Your task to perform on an android device: turn vacation reply on in the gmail app Image 0: 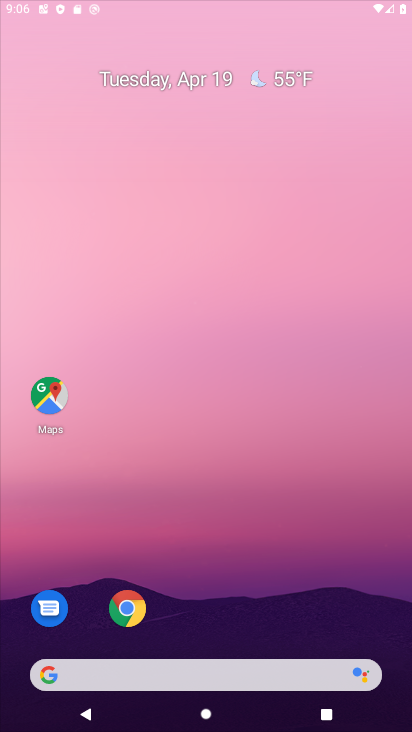
Step 0: drag from (214, 474) to (207, 146)
Your task to perform on an android device: turn vacation reply on in the gmail app Image 1: 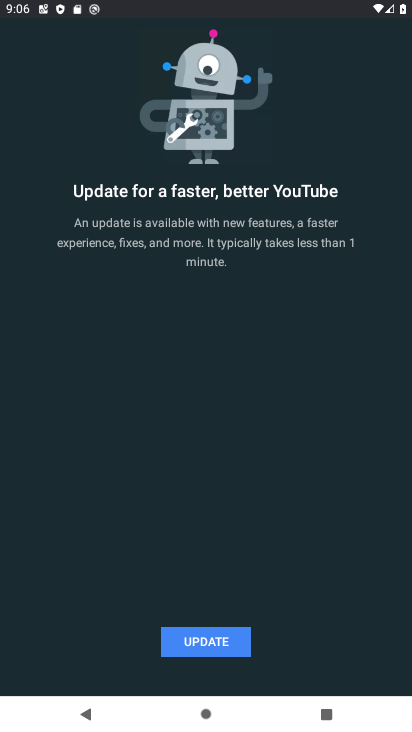
Step 1: press back button
Your task to perform on an android device: turn vacation reply on in the gmail app Image 2: 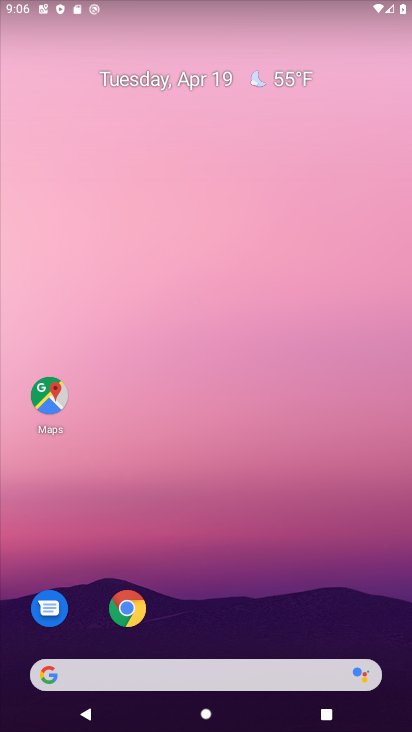
Step 2: drag from (210, 655) to (288, 193)
Your task to perform on an android device: turn vacation reply on in the gmail app Image 3: 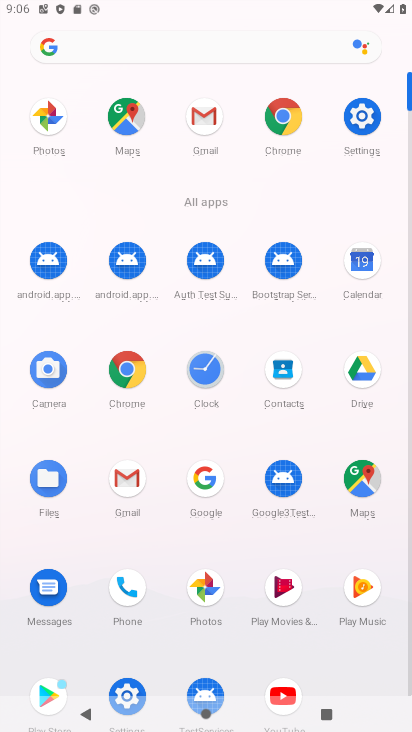
Step 3: click (130, 500)
Your task to perform on an android device: turn vacation reply on in the gmail app Image 4: 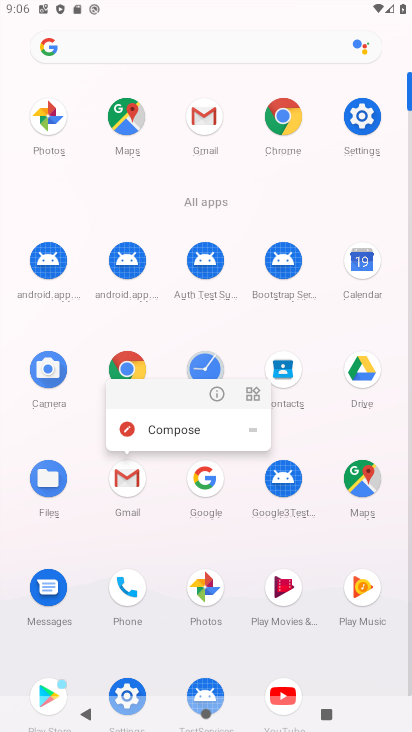
Step 4: click (132, 486)
Your task to perform on an android device: turn vacation reply on in the gmail app Image 5: 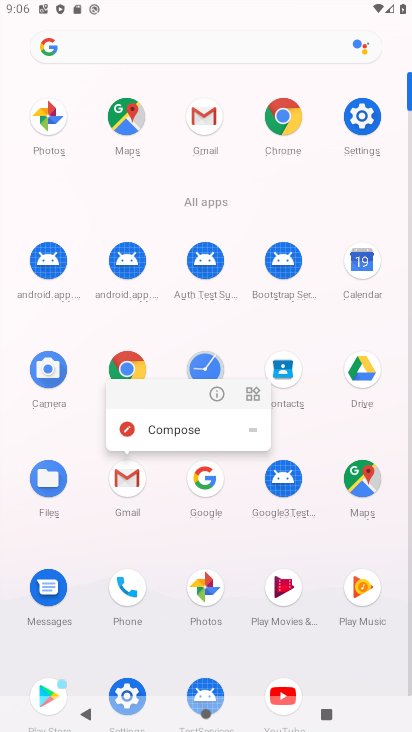
Step 5: click (128, 475)
Your task to perform on an android device: turn vacation reply on in the gmail app Image 6: 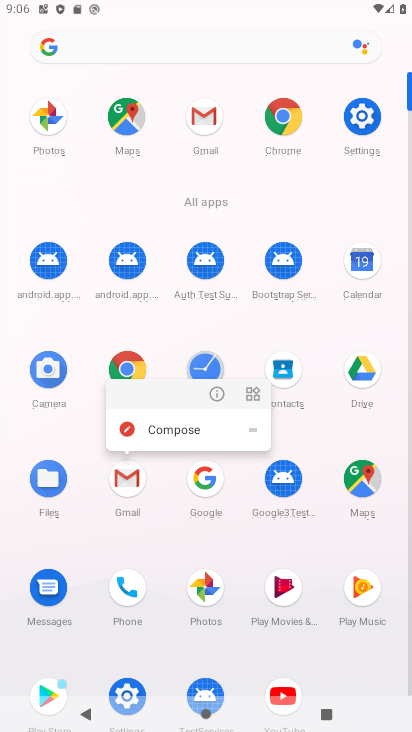
Step 6: click (128, 475)
Your task to perform on an android device: turn vacation reply on in the gmail app Image 7: 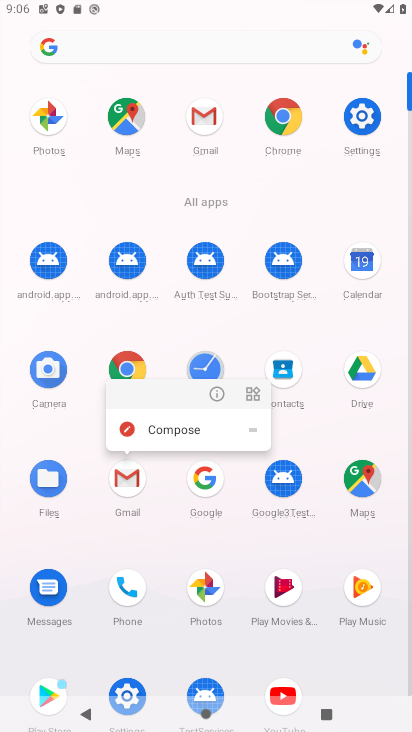
Step 7: click (128, 481)
Your task to perform on an android device: turn vacation reply on in the gmail app Image 8: 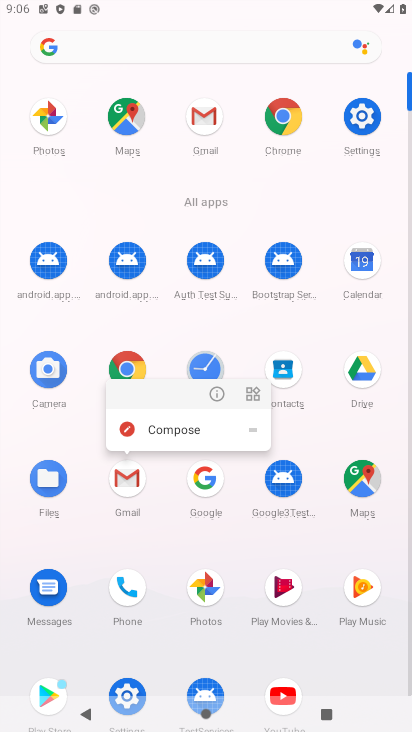
Step 8: click (126, 494)
Your task to perform on an android device: turn vacation reply on in the gmail app Image 9: 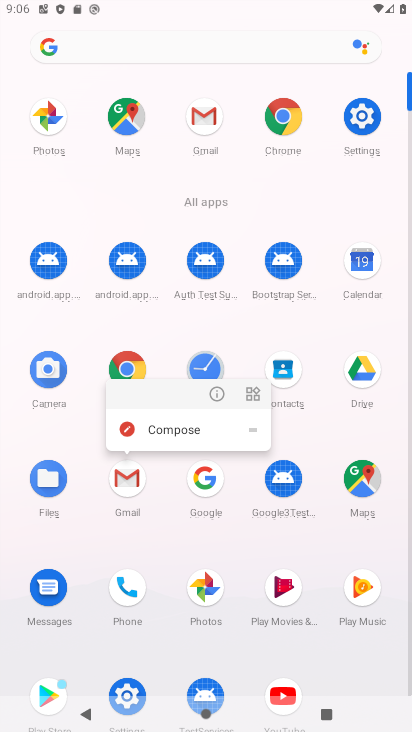
Step 9: click (126, 493)
Your task to perform on an android device: turn vacation reply on in the gmail app Image 10: 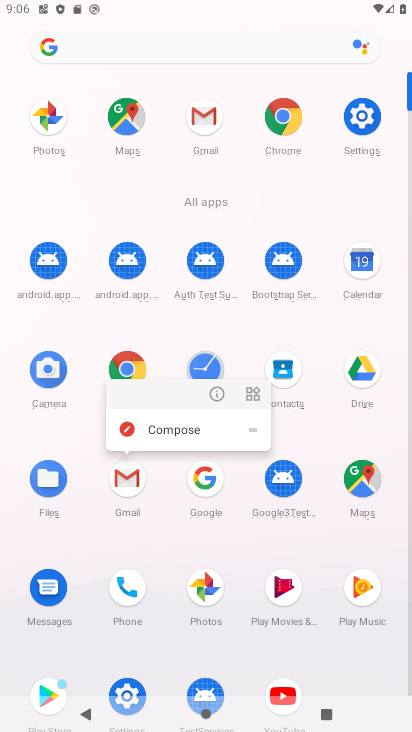
Step 10: click (133, 485)
Your task to perform on an android device: turn vacation reply on in the gmail app Image 11: 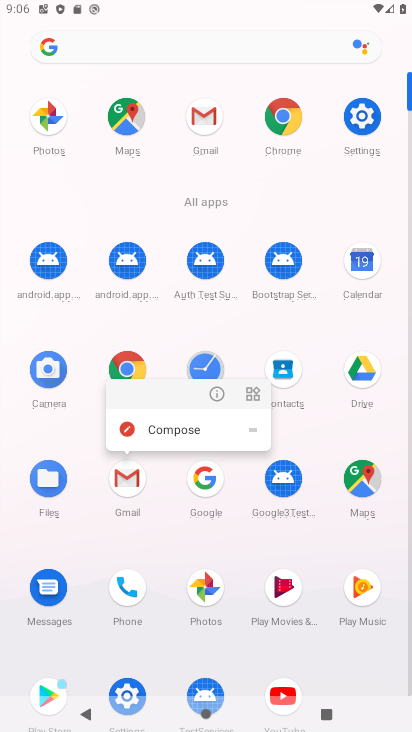
Step 11: click (134, 486)
Your task to perform on an android device: turn vacation reply on in the gmail app Image 12: 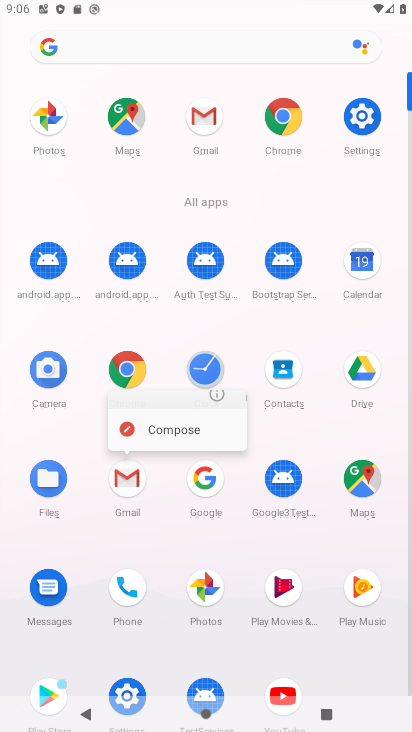
Step 12: click (134, 486)
Your task to perform on an android device: turn vacation reply on in the gmail app Image 13: 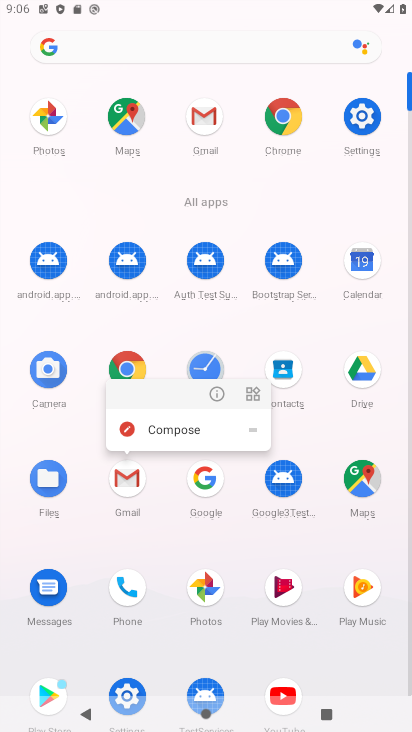
Step 13: click (132, 478)
Your task to perform on an android device: turn vacation reply on in the gmail app Image 14: 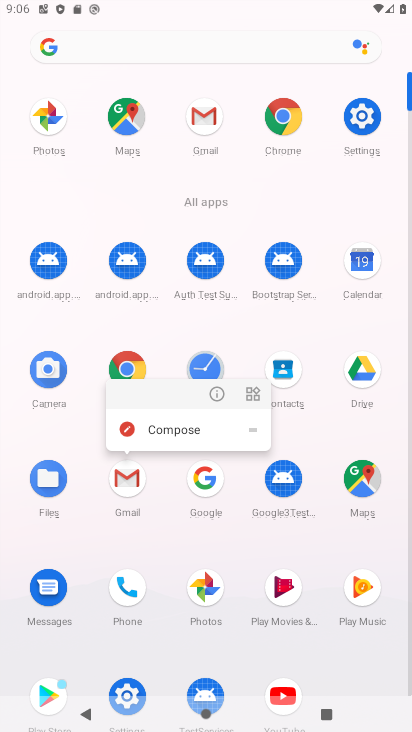
Step 14: click (120, 459)
Your task to perform on an android device: turn vacation reply on in the gmail app Image 15: 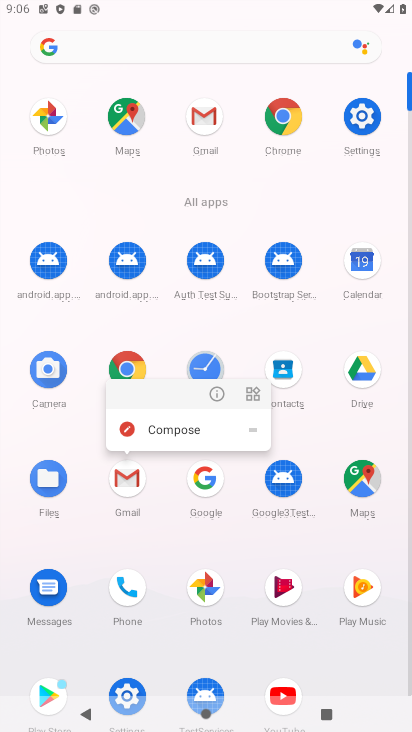
Step 15: click (139, 496)
Your task to perform on an android device: turn vacation reply on in the gmail app Image 16: 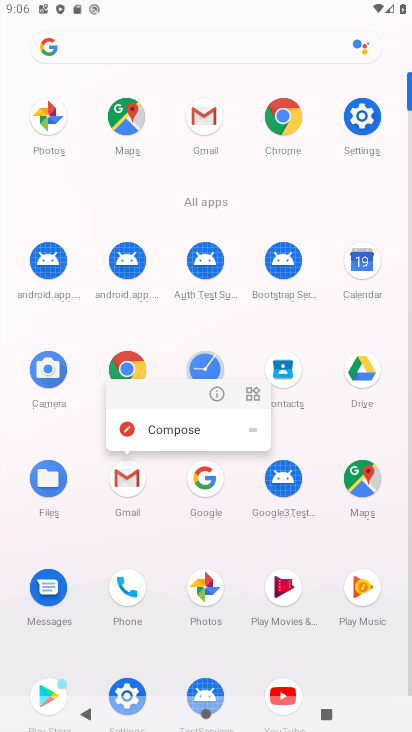
Step 16: click (121, 495)
Your task to perform on an android device: turn vacation reply on in the gmail app Image 17: 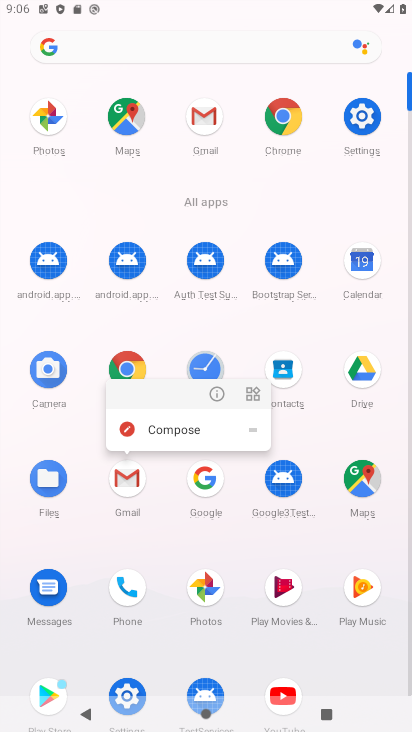
Step 17: click (140, 482)
Your task to perform on an android device: turn vacation reply on in the gmail app Image 18: 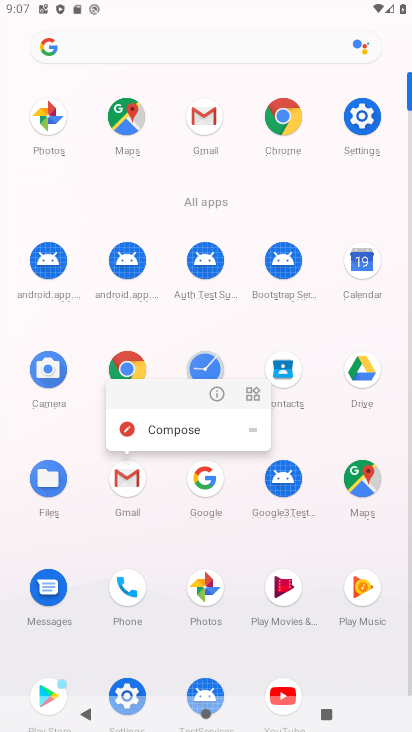
Step 18: click (125, 488)
Your task to perform on an android device: turn vacation reply on in the gmail app Image 19: 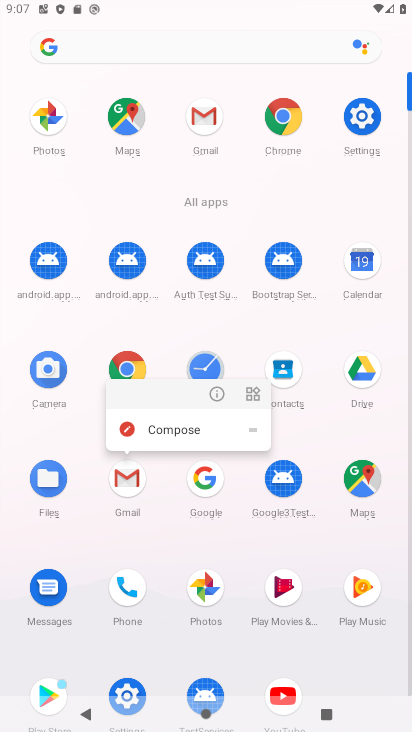
Step 19: click (125, 488)
Your task to perform on an android device: turn vacation reply on in the gmail app Image 20: 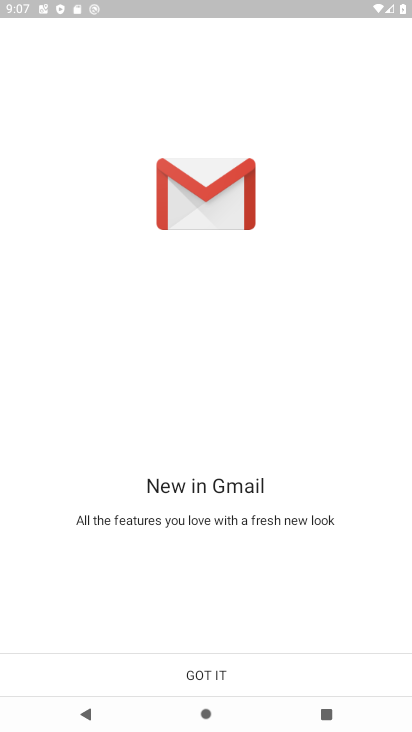
Step 20: click (211, 666)
Your task to perform on an android device: turn vacation reply on in the gmail app Image 21: 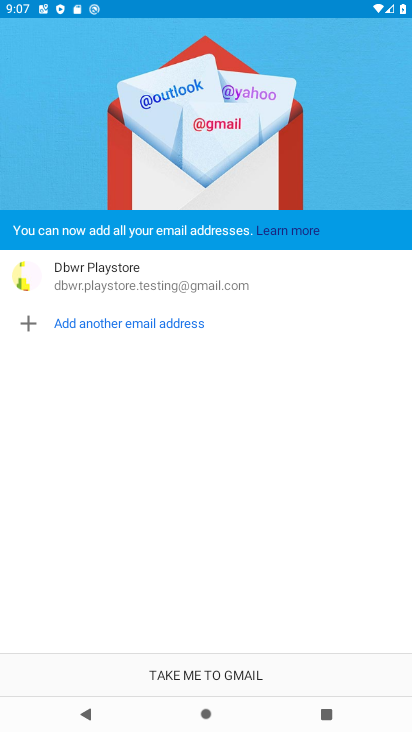
Step 21: click (228, 672)
Your task to perform on an android device: turn vacation reply on in the gmail app Image 22: 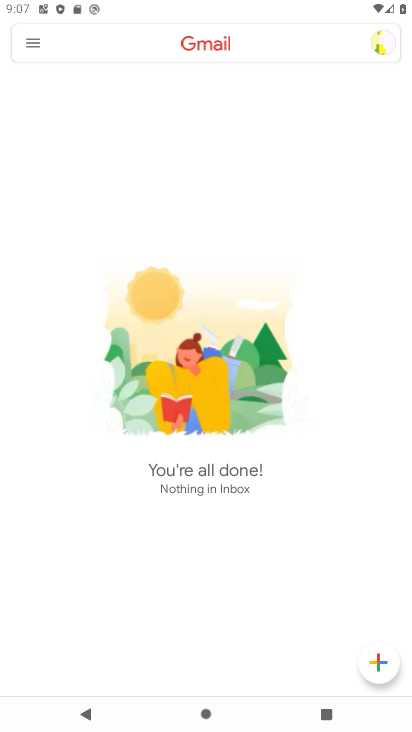
Step 22: click (38, 47)
Your task to perform on an android device: turn vacation reply on in the gmail app Image 23: 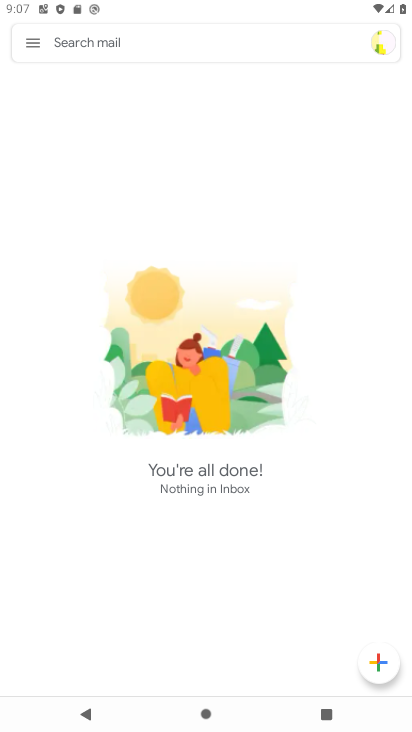
Step 23: click (38, 43)
Your task to perform on an android device: turn vacation reply on in the gmail app Image 24: 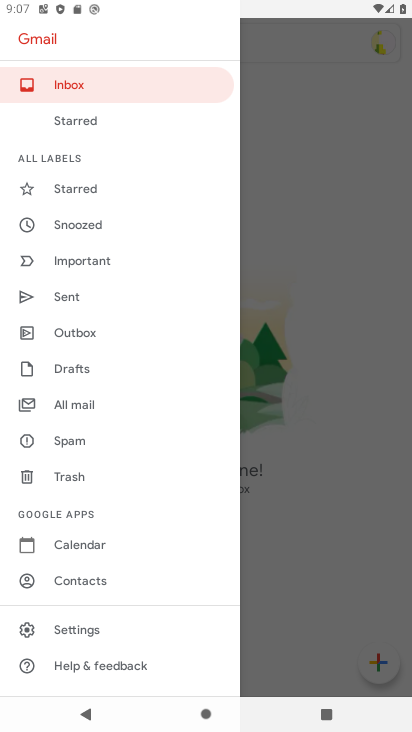
Step 24: click (110, 627)
Your task to perform on an android device: turn vacation reply on in the gmail app Image 25: 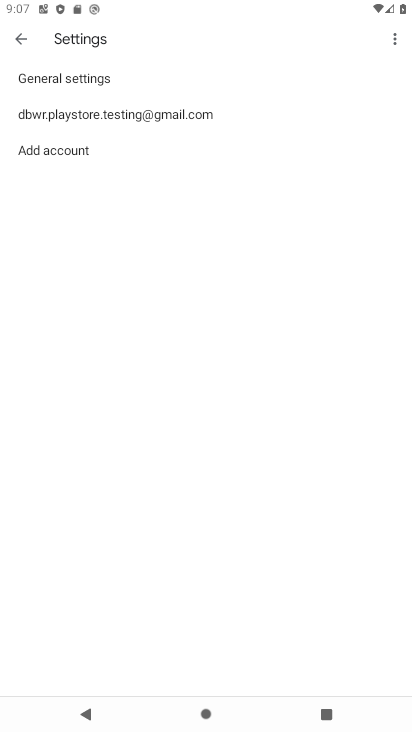
Step 25: click (183, 120)
Your task to perform on an android device: turn vacation reply on in the gmail app Image 26: 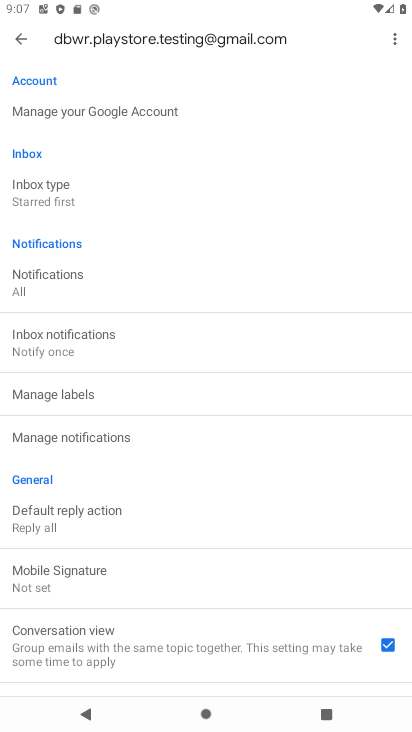
Step 26: drag from (103, 585) to (213, 279)
Your task to perform on an android device: turn vacation reply on in the gmail app Image 27: 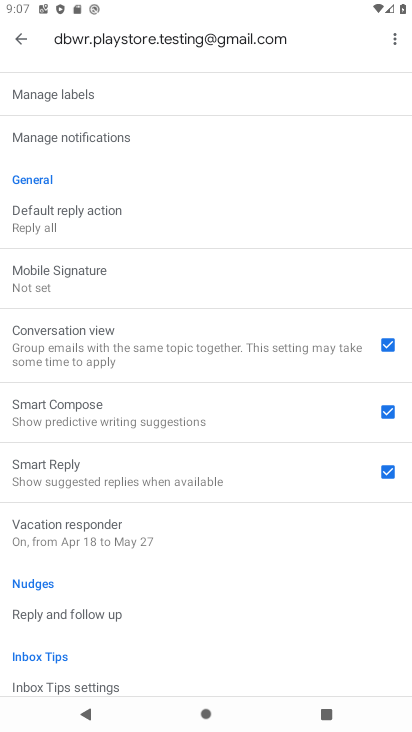
Step 27: drag from (87, 650) to (198, 209)
Your task to perform on an android device: turn vacation reply on in the gmail app Image 28: 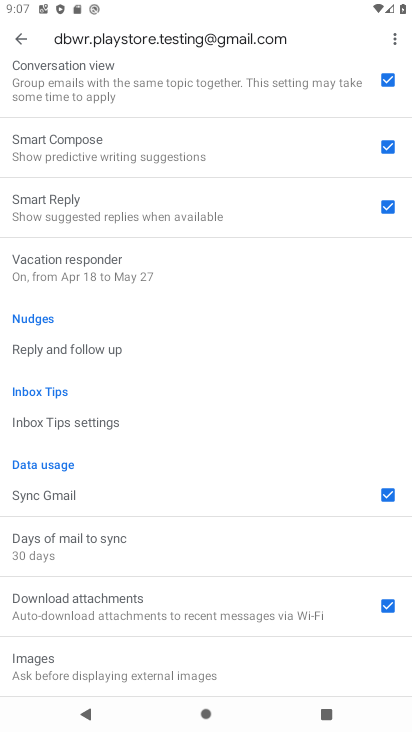
Step 28: drag from (145, 532) to (176, 407)
Your task to perform on an android device: turn vacation reply on in the gmail app Image 29: 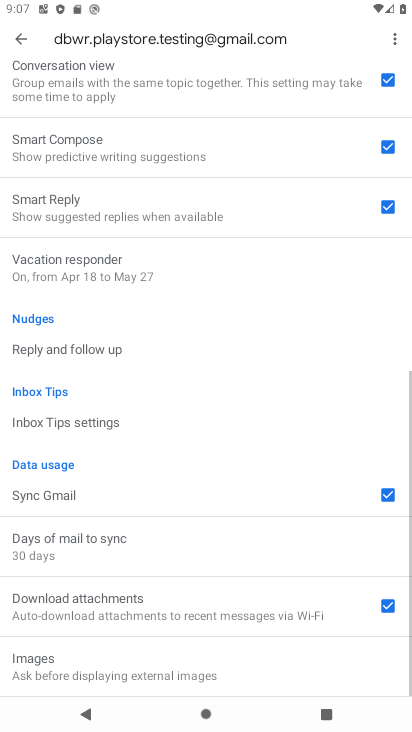
Step 29: drag from (155, 565) to (180, 469)
Your task to perform on an android device: turn vacation reply on in the gmail app Image 30: 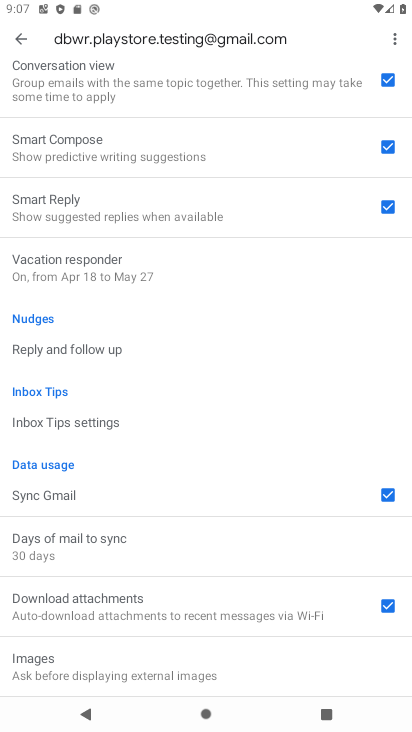
Step 30: drag from (191, 413) to (226, 290)
Your task to perform on an android device: turn vacation reply on in the gmail app Image 31: 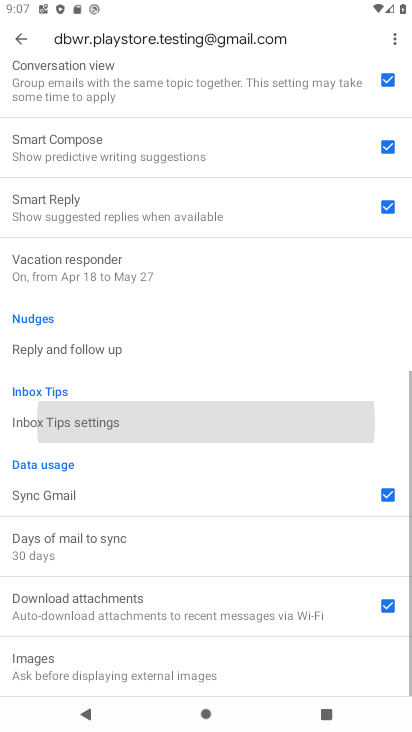
Step 31: drag from (202, 375) to (219, 311)
Your task to perform on an android device: turn vacation reply on in the gmail app Image 32: 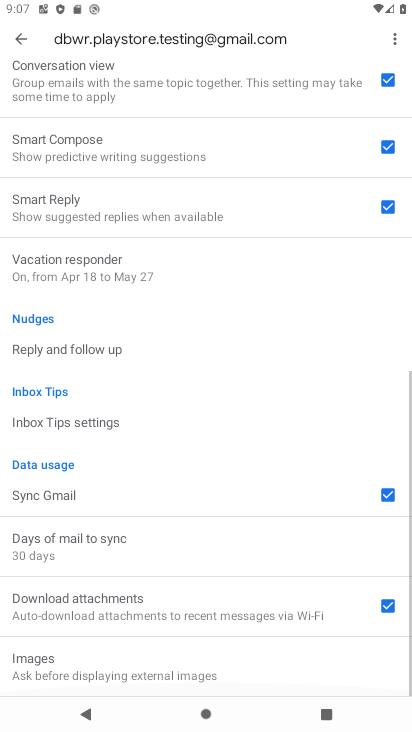
Step 32: click (193, 253)
Your task to perform on an android device: turn vacation reply on in the gmail app Image 33: 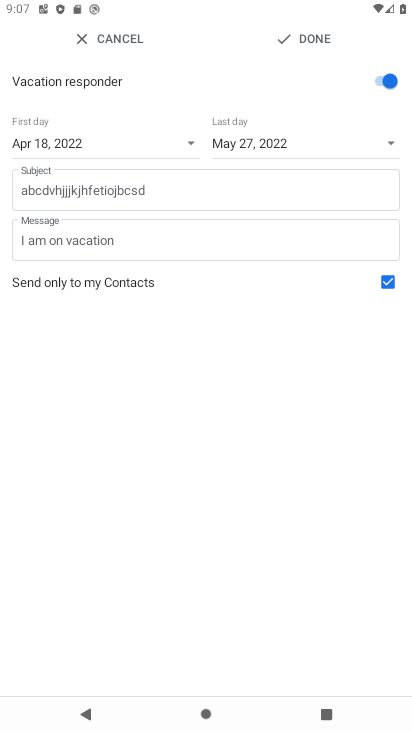
Step 33: task complete